Your task to perform on an android device: turn on the 12-hour format for clock Image 0: 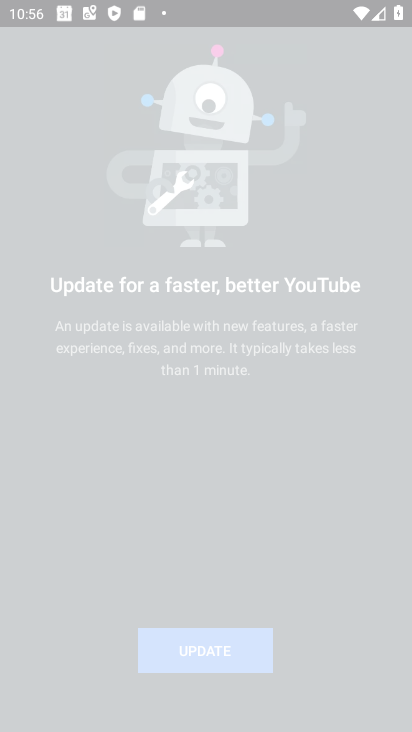
Step 0: drag from (296, 587) to (261, 130)
Your task to perform on an android device: turn on the 12-hour format for clock Image 1: 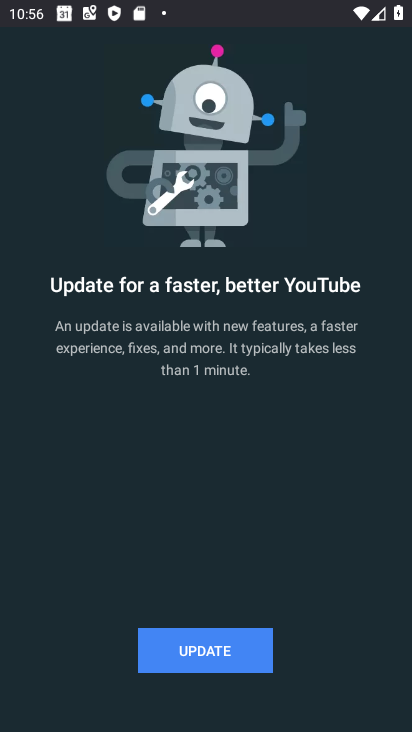
Step 1: press home button
Your task to perform on an android device: turn on the 12-hour format for clock Image 2: 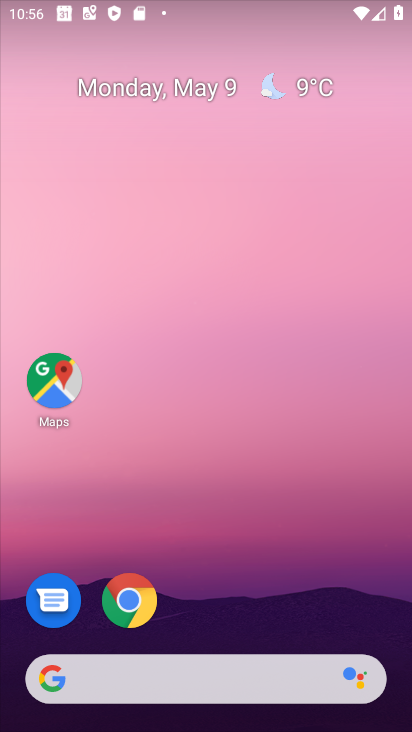
Step 2: drag from (369, 586) to (325, 148)
Your task to perform on an android device: turn on the 12-hour format for clock Image 3: 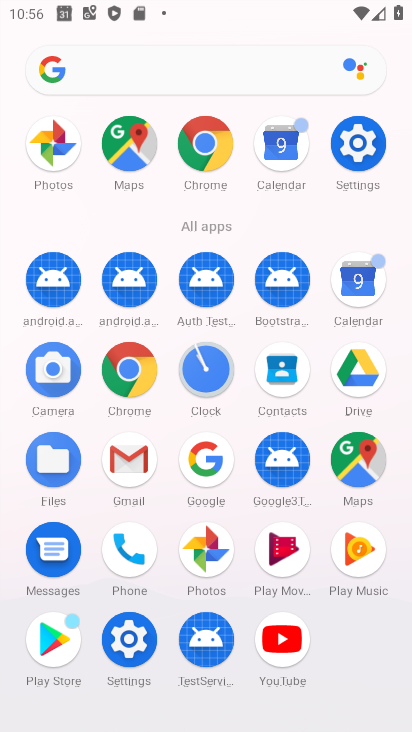
Step 3: click (210, 372)
Your task to perform on an android device: turn on the 12-hour format for clock Image 4: 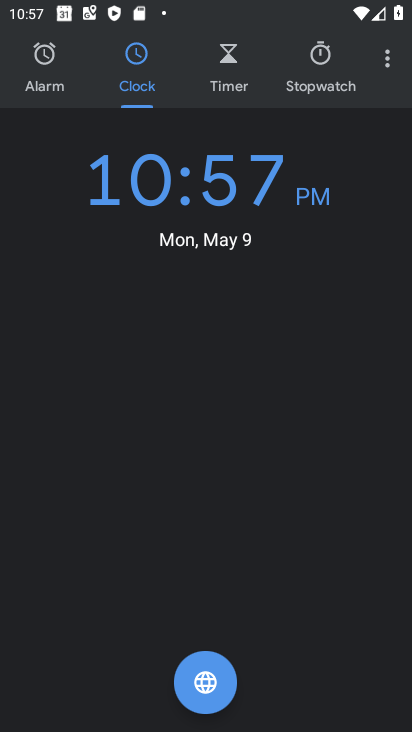
Step 4: click (392, 61)
Your task to perform on an android device: turn on the 12-hour format for clock Image 5: 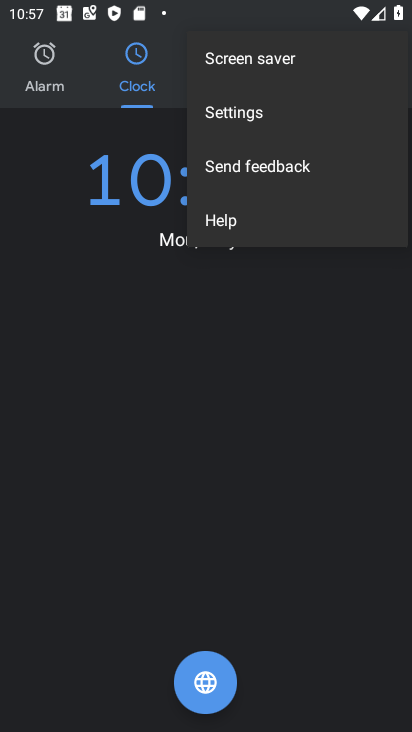
Step 5: click (289, 125)
Your task to perform on an android device: turn on the 12-hour format for clock Image 6: 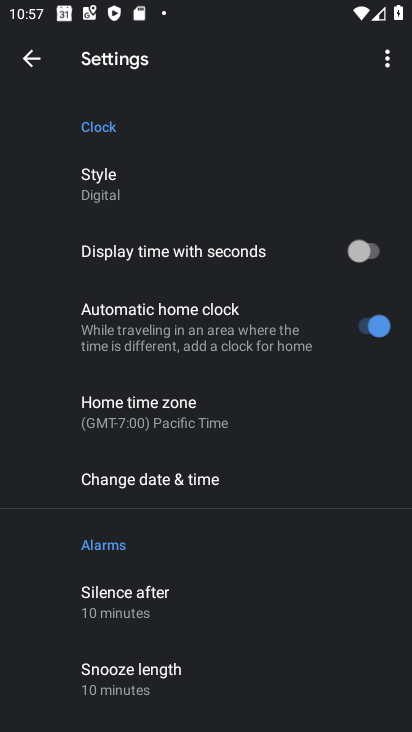
Step 6: click (218, 495)
Your task to perform on an android device: turn on the 12-hour format for clock Image 7: 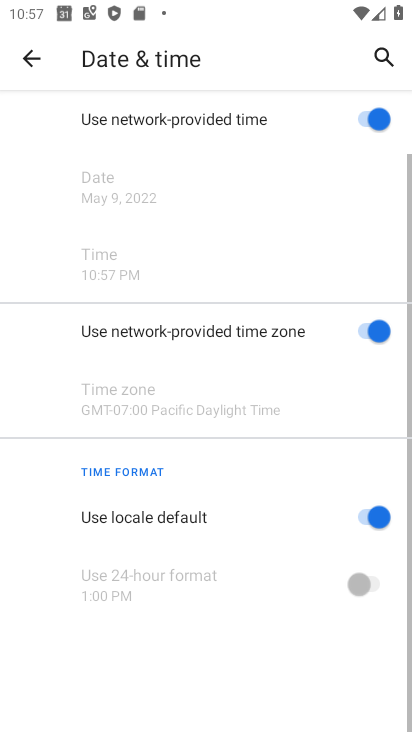
Step 7: task complete